Your task to perform on an android device: Search for hotels in Paris Image 0: 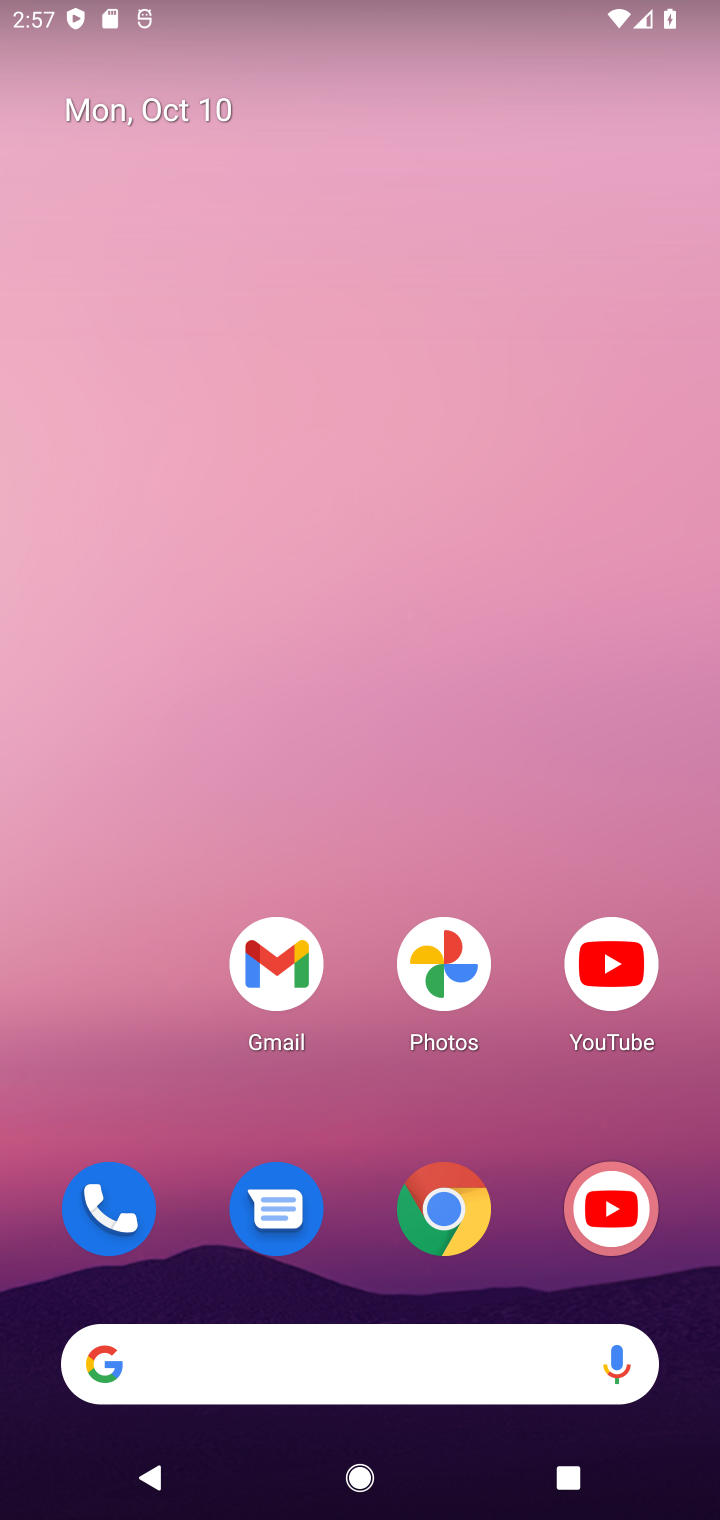
Step 0: click (424, 1222)
Your task to perform on an android device: Search for hotels in Paris Image 1: 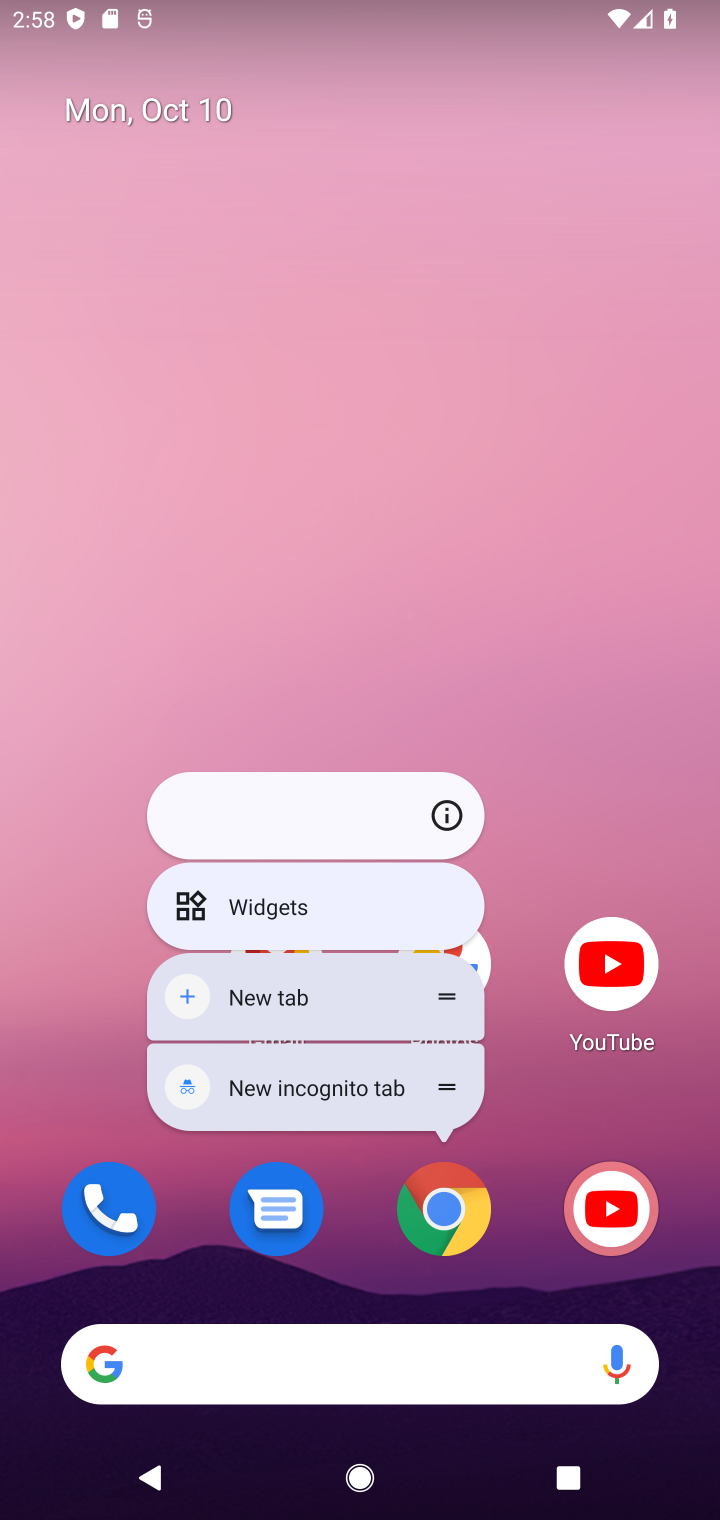
Step 1: click (424, 1222)
Your task to perform on an android device: Search for hotels in Paris Image 2: 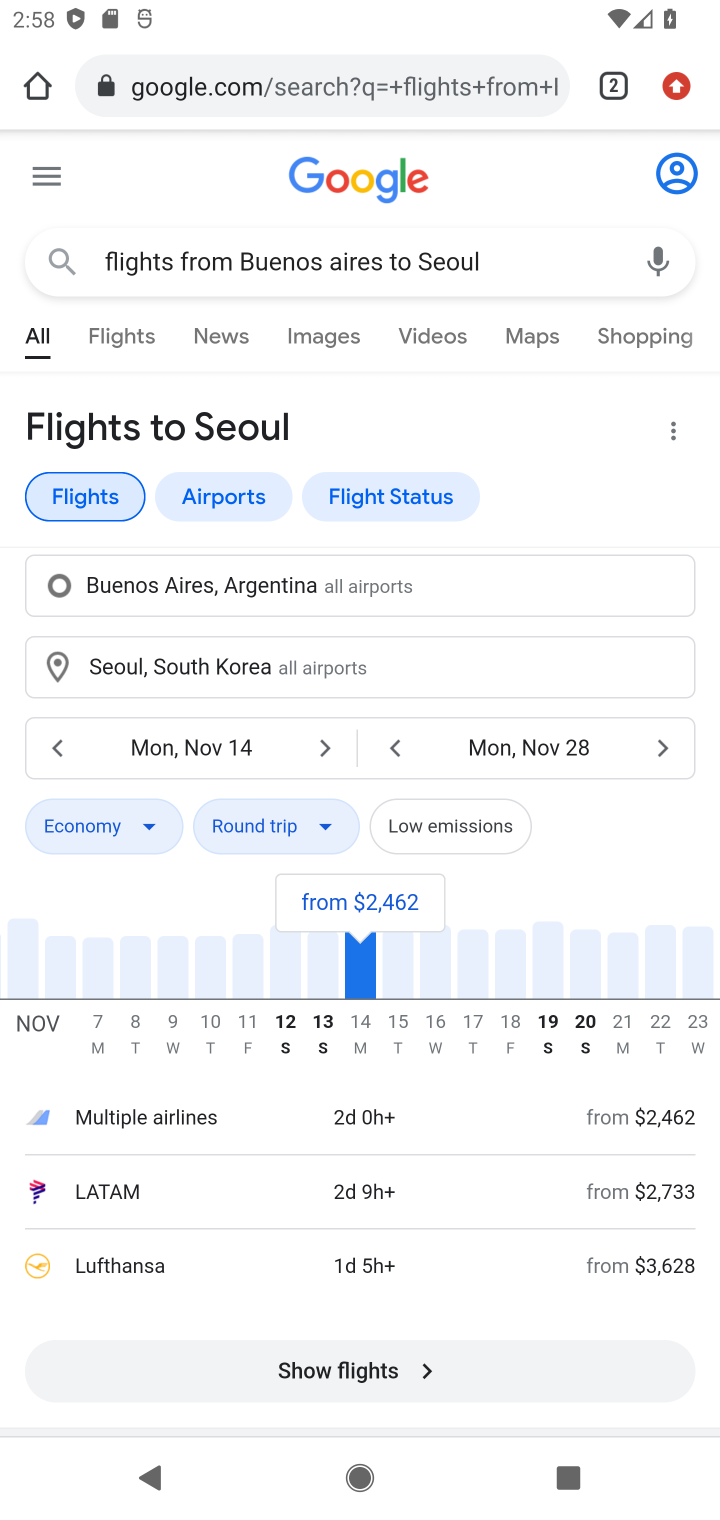
Step 2: click (546, 270)
Your task to perform on an android device: Search for hotels in Paris Image 3: 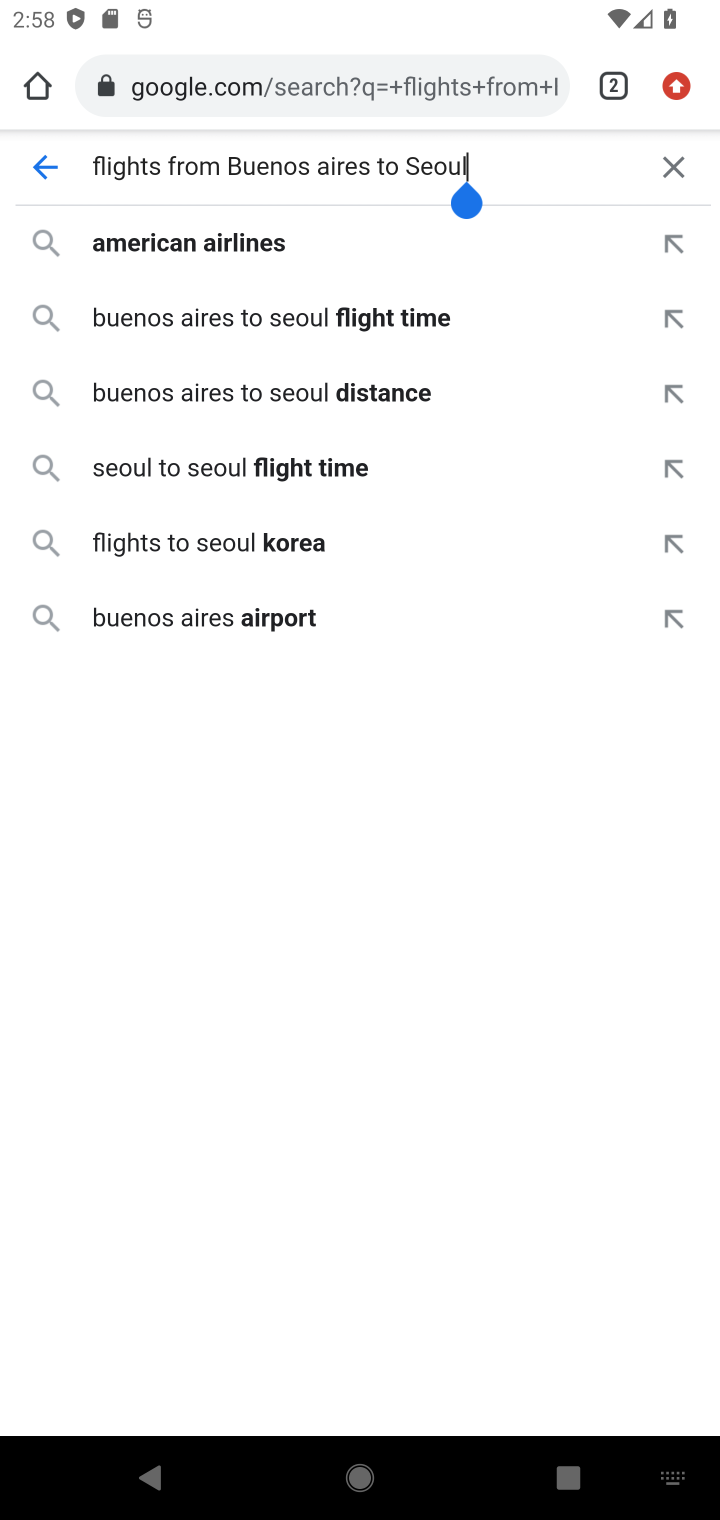
Step 3: click (667, 161)
Your task to perform on an android device: Search for hotels in Paris Image 4: 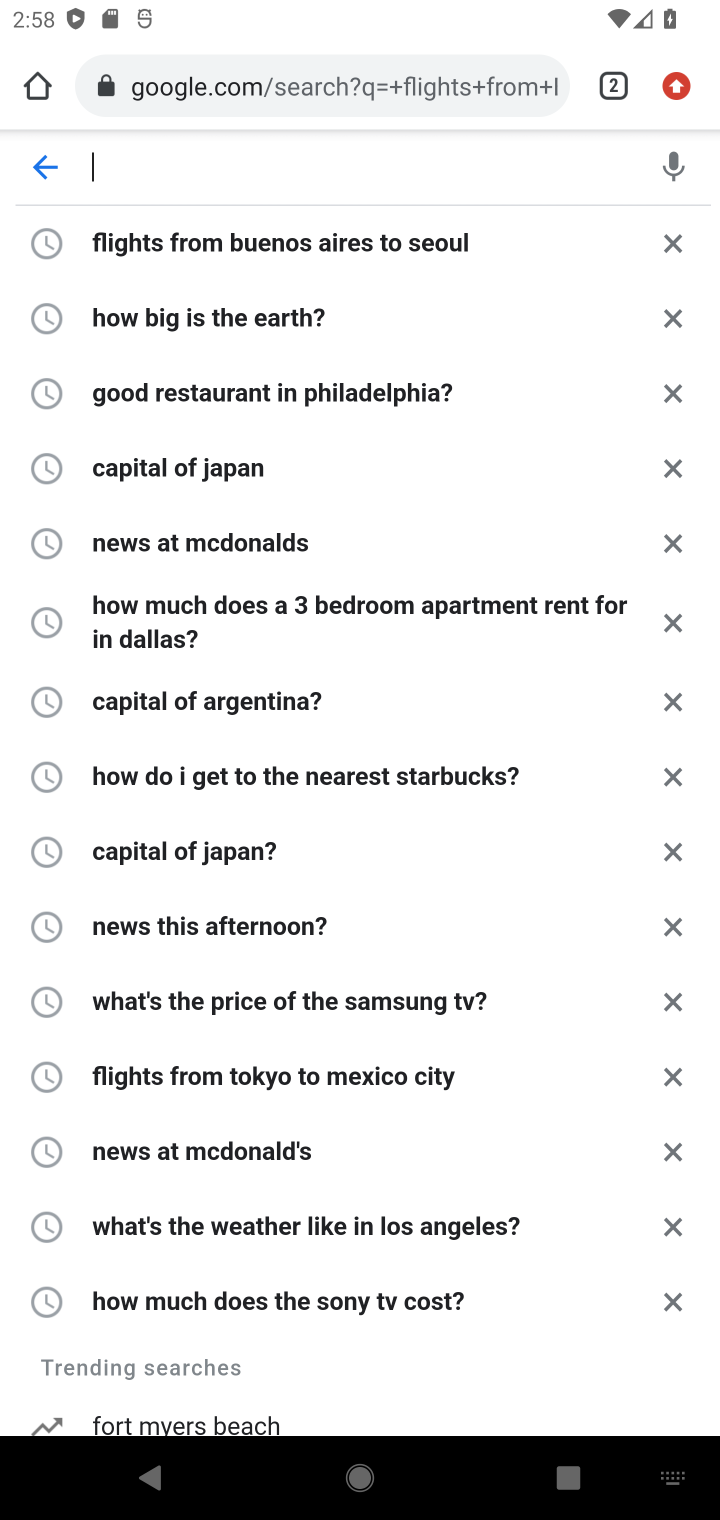
Step 4: type "hotels in paris"
Your task to perform on an android device: Search for hotels in Paris Image 5: 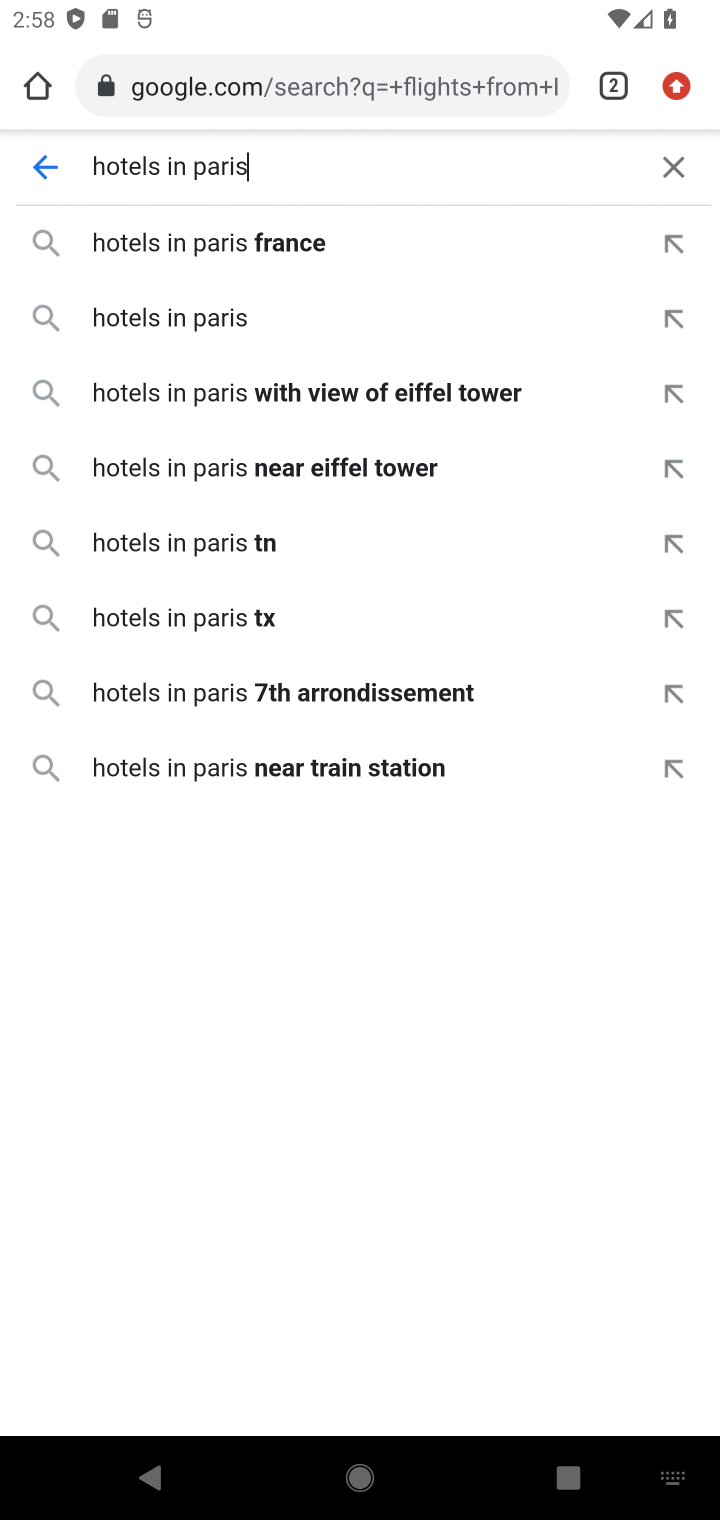
Step 5: click (122, 314)
Your task to perform on an android device: Search for hotels in Paris Image 6: 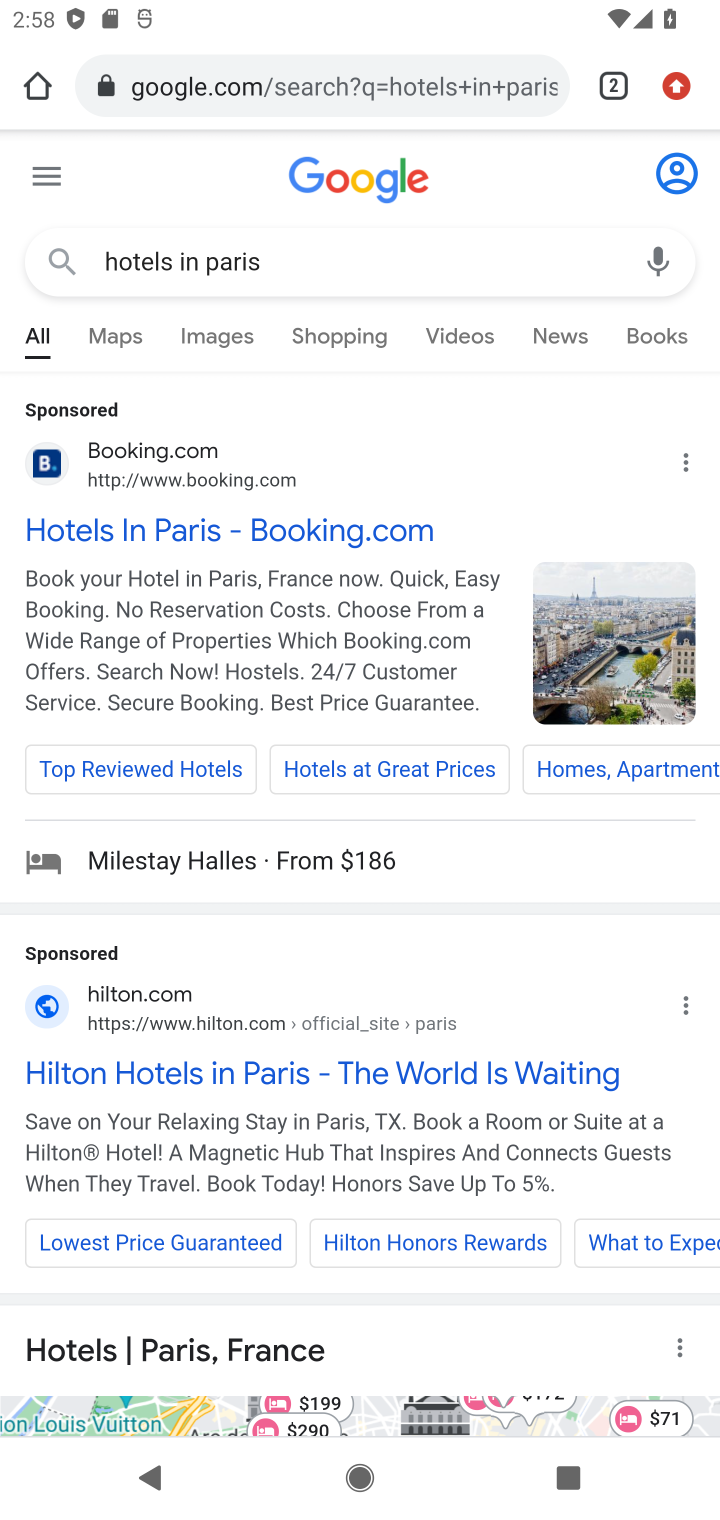
Step 6: task complete